Your task to perform on an android device: Toggle the flashlight Image 0: 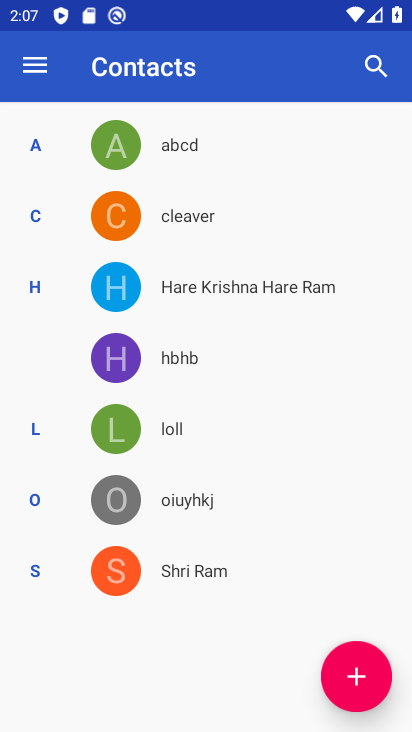
Step 0: press home button
Your task to perform on an android device: Toggle the flashlight Image 1: 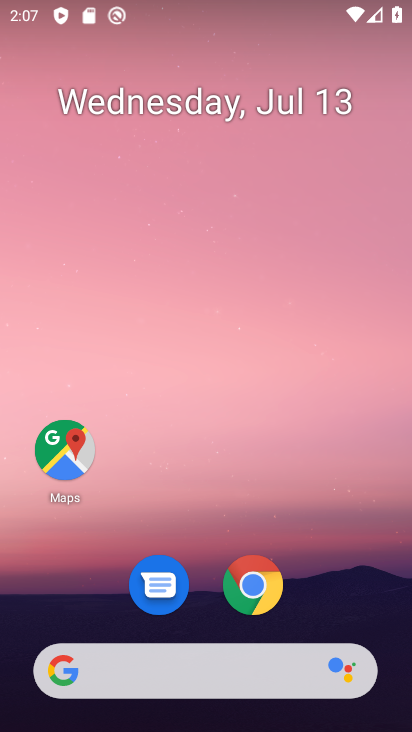
Step 1: task complete